Your task to perform on an android device: Go to Amazon Image 0: 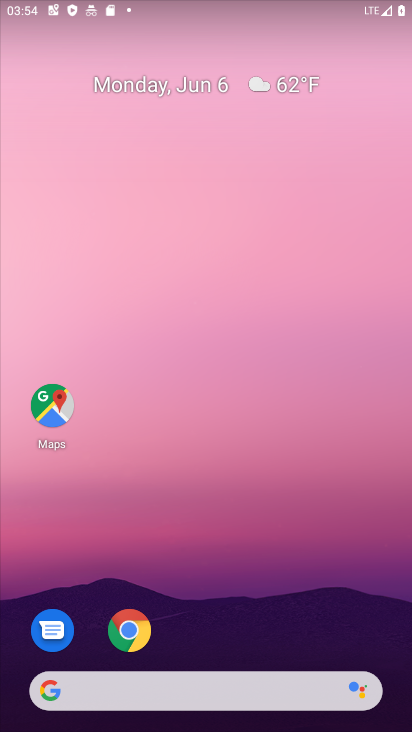
Step 0: click (109, 620)
Your task to perform on an android device: Go to Amazon Image 1: 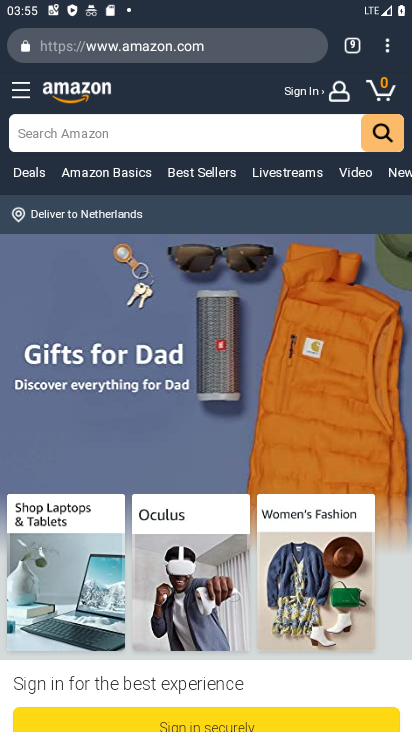
Step 1: click (397, 42)
Your task to perform on an android device: Go to Amazon Image 2: 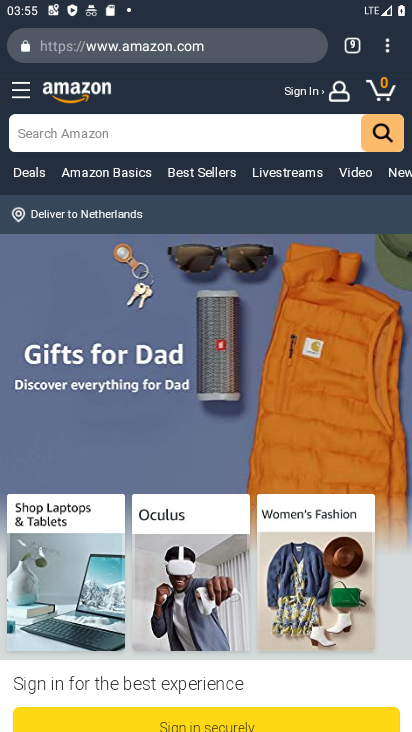
Step 2: task complete